Your task to perform on an android device: clear history in the chrome app Image 0: 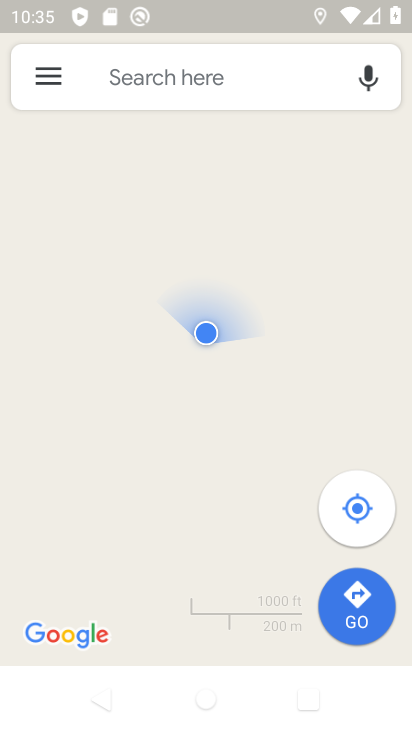
Step 0: press home button
Your task to perform on an android device: clear history in the chrome app Image 1: 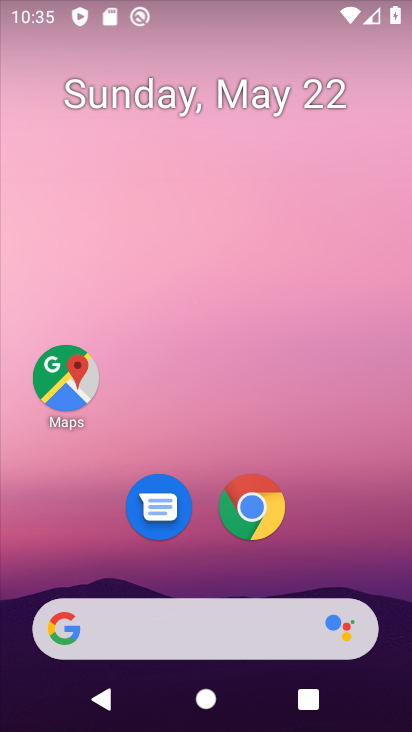
Step 1: click (276, 513)
Your task to perform on an android device: clear history in the chrome app Image 2: 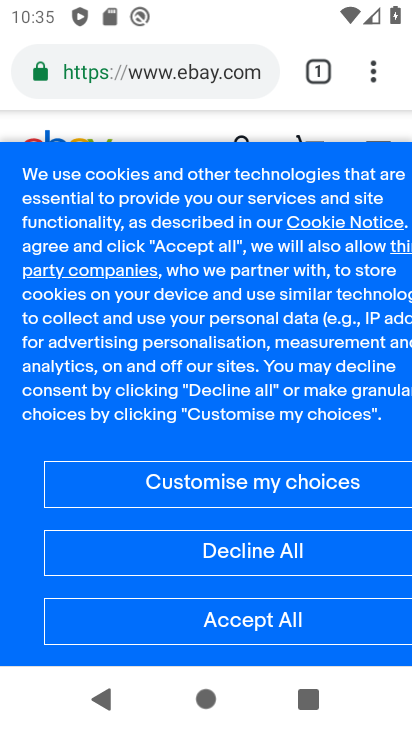
Step 2: click (379, 85)
Your task to perform on an android device: clear history in the chrome app Image 3: 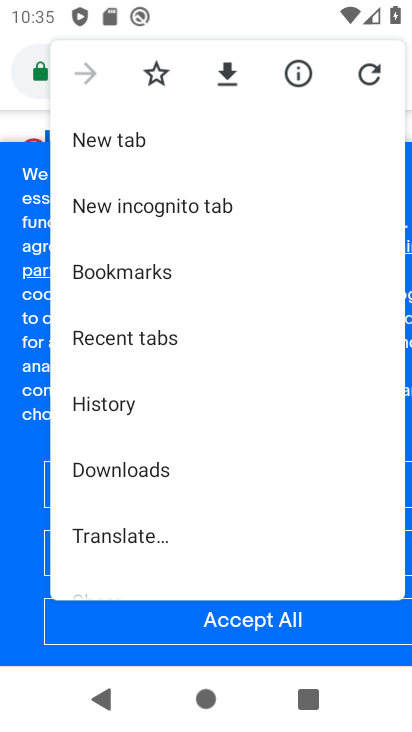
Step 3: click (117, 417)
Your task to perform on an android device: clear history in the chrome app Image 4: 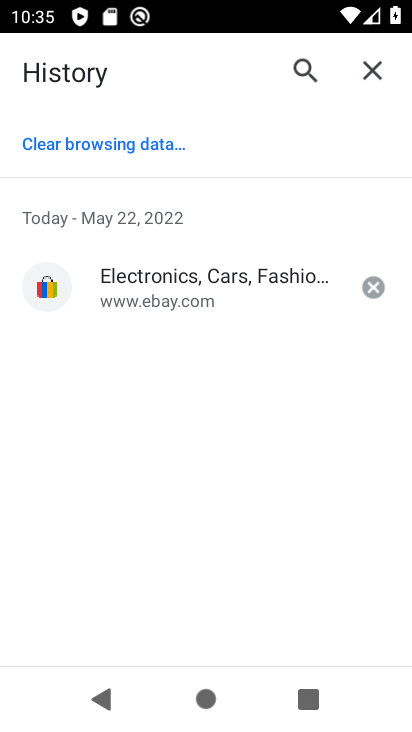
Step 4: click (130, 137)
Your task to perform on an android device: clear history in the chrome app Image 5: 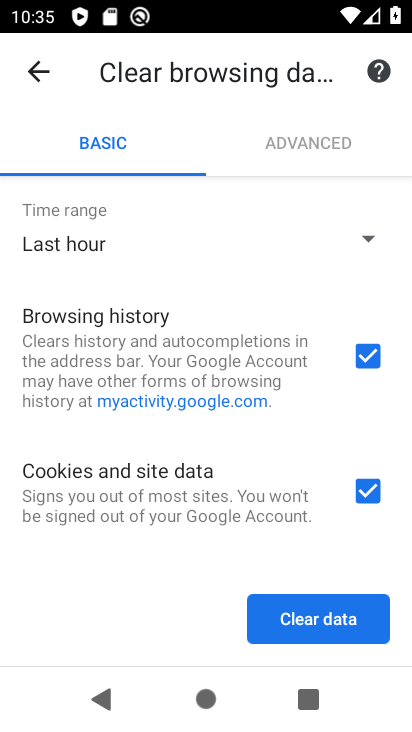
Step 5: click (371, 499)
Your task to perform on an android device: clear history in the chrome app Image 6: 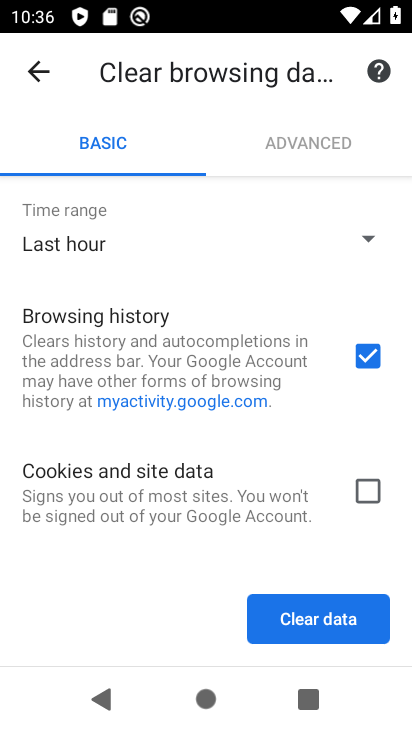
Step 6: click (358, 601)
Your task to perform on an android device: clear history in the chrome app Image 7: 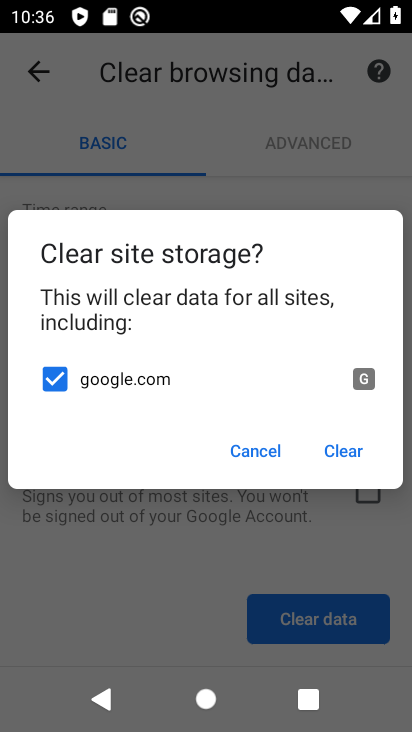
Step 7: click (357, 443)
Your task to perform on an android device: clear history in the chrome app Image 8: 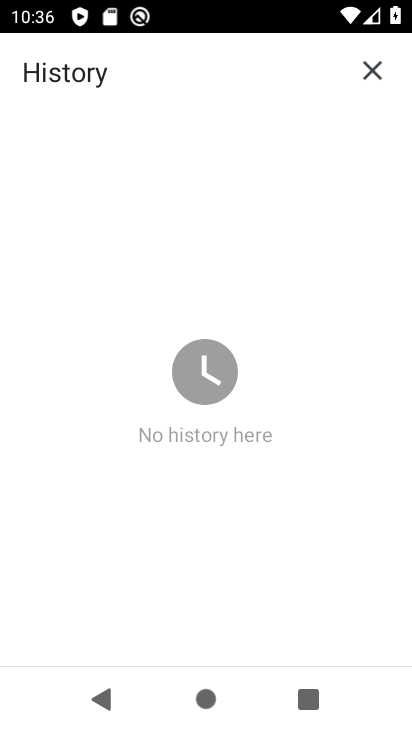
Step 8: task complete